Your task to perform on an android device: What's the weather going to be this weekend? Image 0: 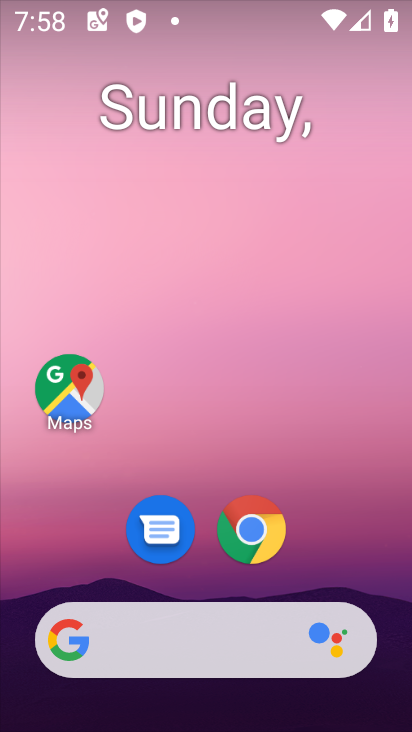
Step 0: drag from (368, 455) to (335, 130)
Your task to perform on an android device: What's the weather going to be this weekend? Image 1: 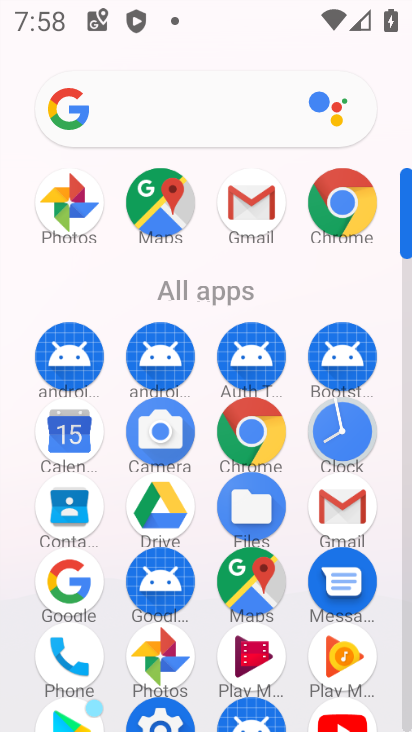
Step 1: drag from (294, 664) to (293, 342)
Your task to perform on an android device: What's the weather going to be this weekend? Image 2: 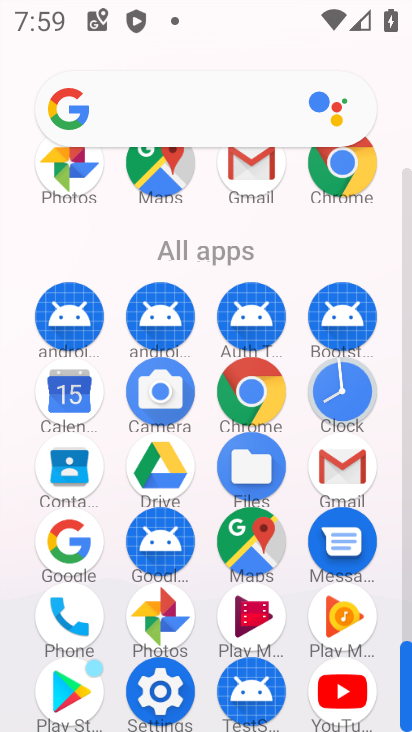
Step 2: click (257, 381)
Your task to perform on an android device: What's the weather going to be this weekend? Image 3: 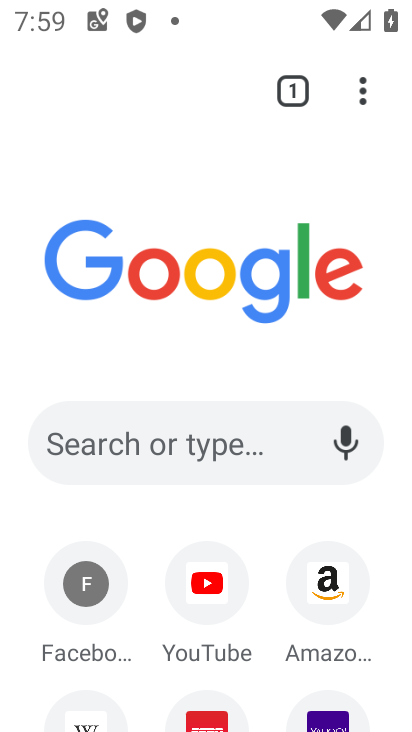
Step 3: click (203, 453)
Your task to perform on an android device: What's the weather going to be this weekend? Image 4: 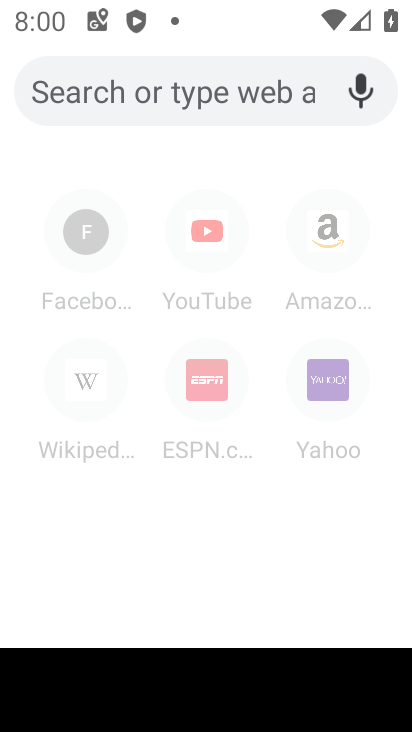
Step 4: type "what's the weather going to be this weekend "
Your task to perform on an android device: What's the weather going to be this weekend? Image 5: 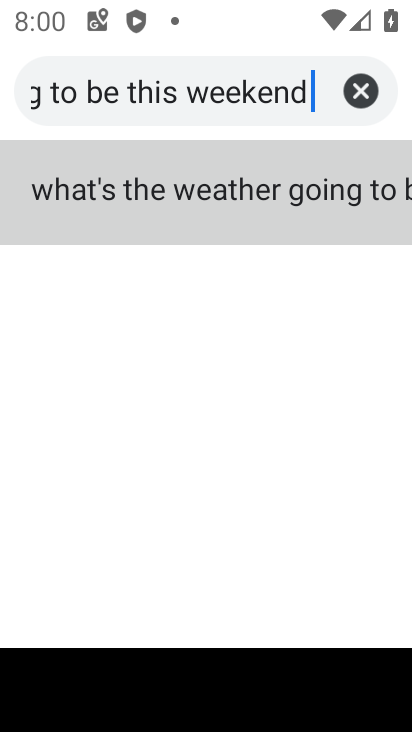
Step 5: click (171, 196)
Your task to perform on an android device: What's the weather going to be this weekend? Image 6: 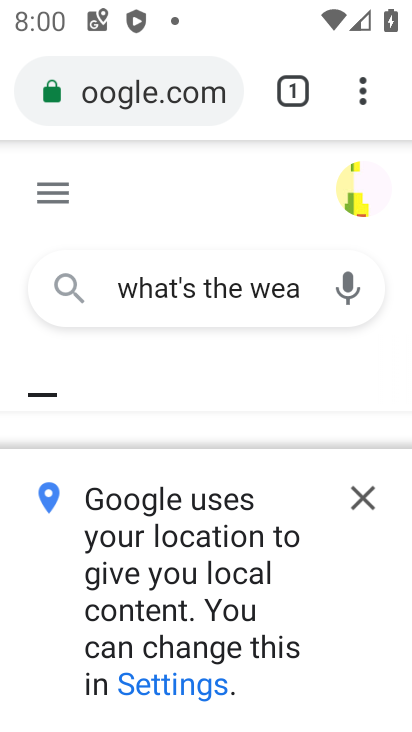
Step 6: click (360, 498)
Your task to perform on an android device: What's the weather going to be this weekend? Image 7: 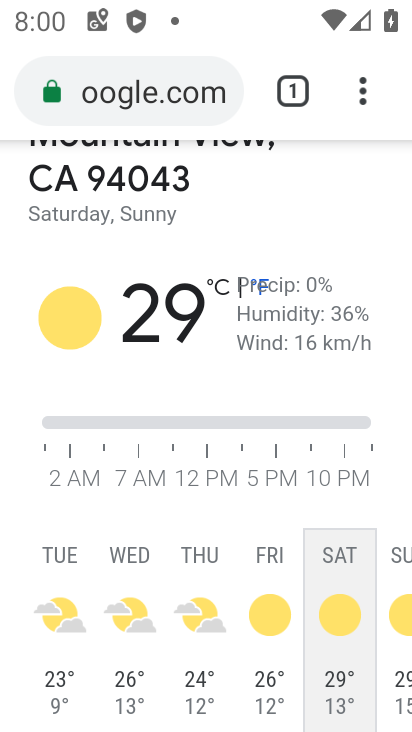
Step 7: task complete